Your task to perform on an android device: create a new album in the google photos Image 0: 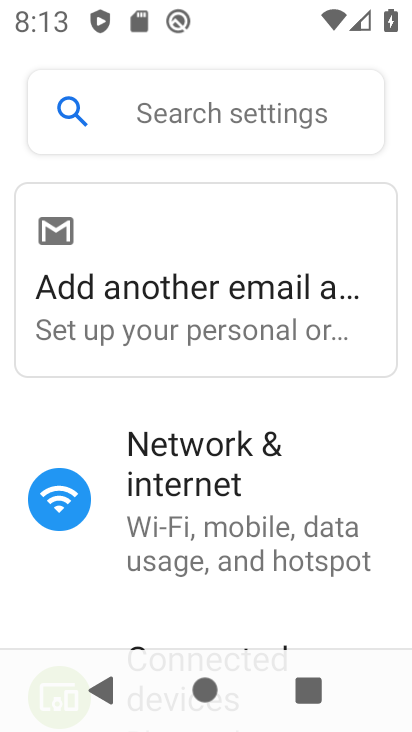
Step 0: press home button
Your task to perform on an android device: create a new album in the google photos Image 1: 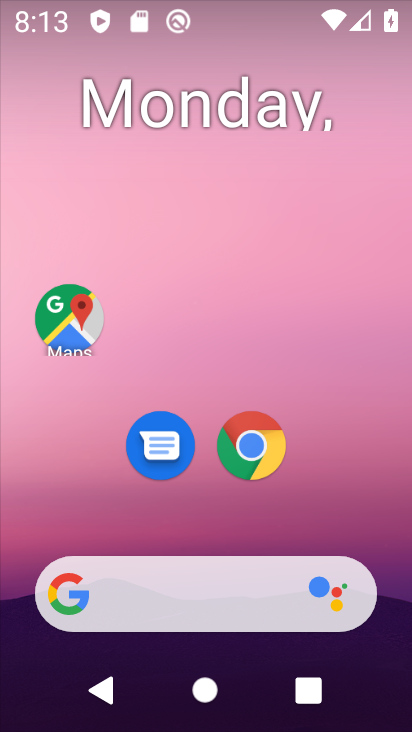
Step 1: drag from (207, 539) to (191, 138)
Your task to perform on an android device: create a new album in the google photos Image 2: 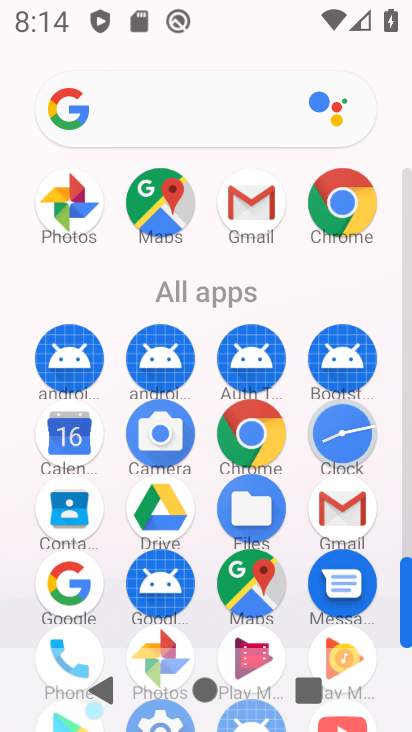
Step 2: click (69, 195)
Your task to perform on an android device: create a new album in the google photos Image 3: 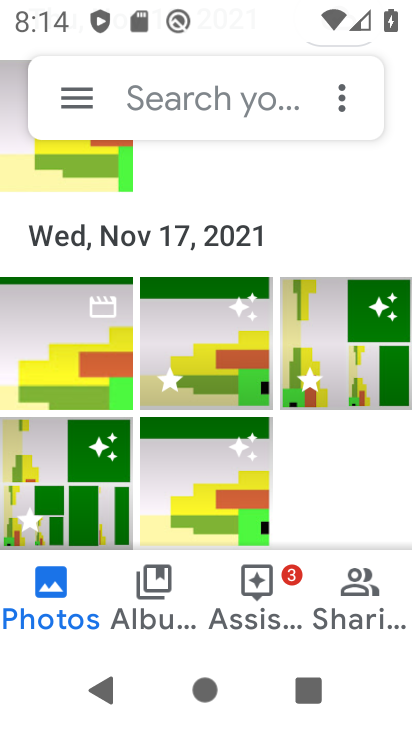
Step 3: click (144, 583)
Your task to perform on an android device: create a new album in the google photos Image 4: 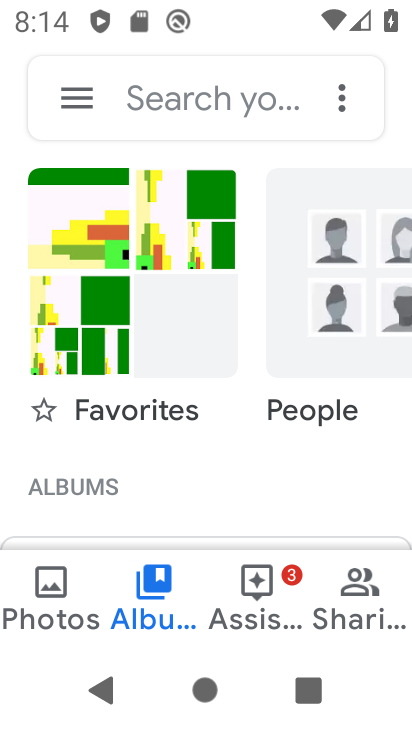
Step 4: click (346, 91)
Your task to perform on an android device: create a new album in the google photos Image 5: 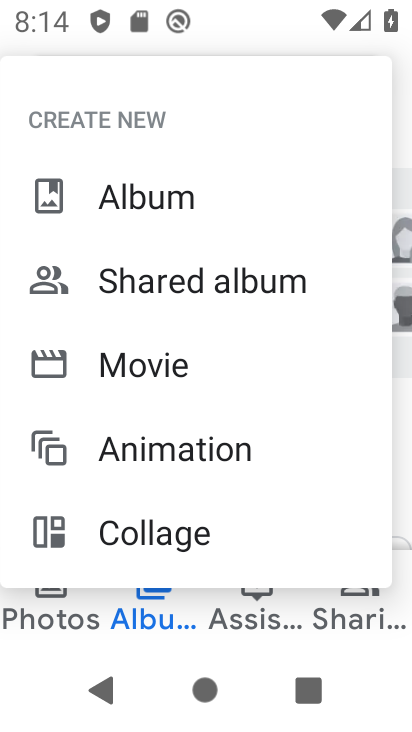
Step 5: click (192, 193)
Your task to perform on an android device: create a new album in the google photos Image 6: 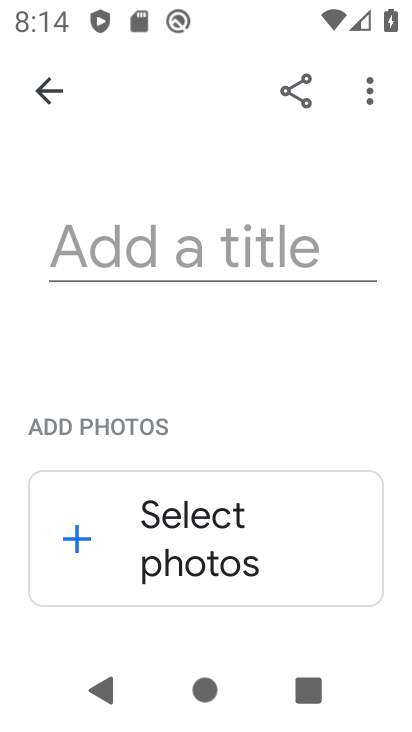
Step 6: click (168, 544)
Your task to perform on an android device: create a new album in the google photos Image 7: 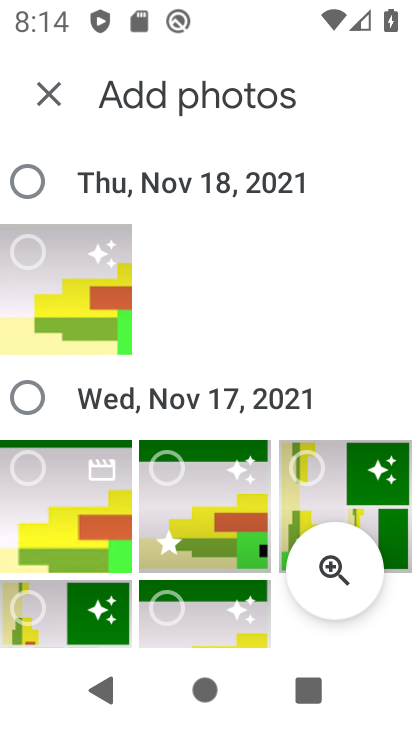
Step 7: click (64, 258)
Your task to perform on an android device: create a new album in the google photos Image 8: 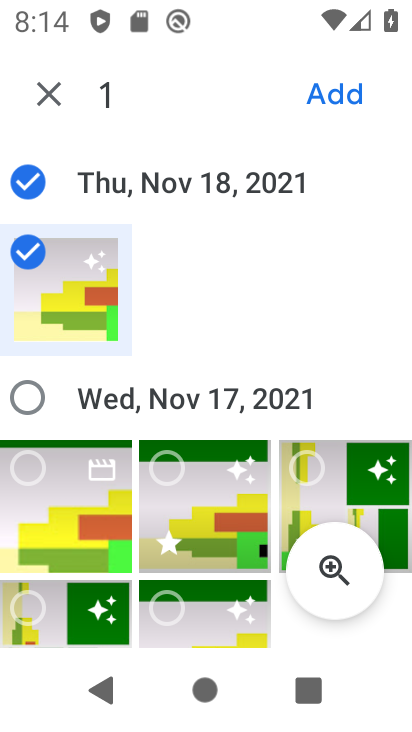
Step 8: click (185, 515)
Your task to perform on an android device: create a new album in the google photos Image 9: 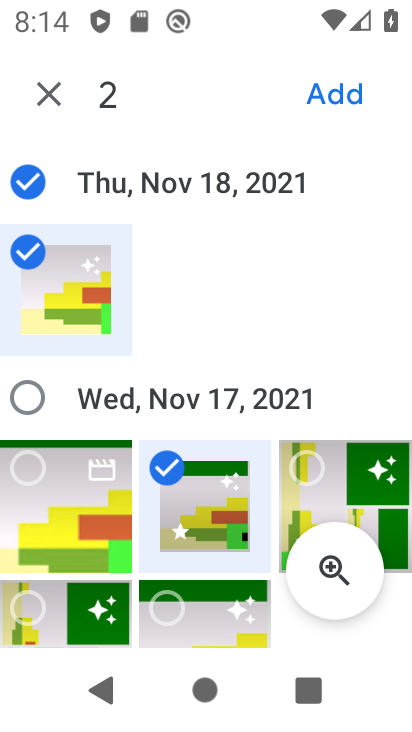
Step 9: click (339, 104)
Your task to perform on an android device: create a new album in the google photos Image 10: 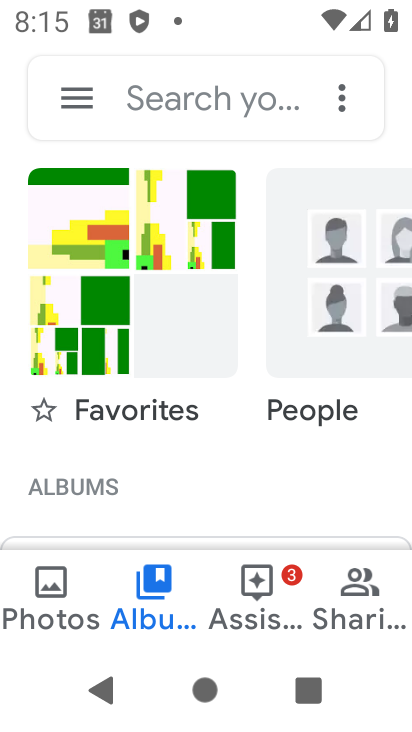
Step 10: click (95, 219)
Your task to perform on an android device: create a new album in the google photos Image 11: 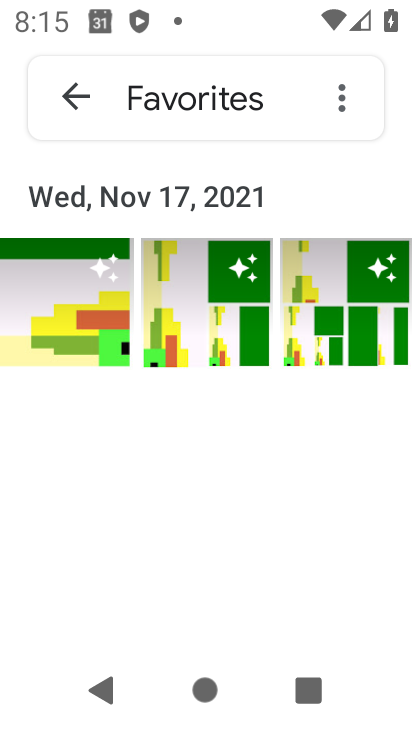
Step 11: click (80, 100)
Your task to perform on an android device: create a new album in the google photos Image 12: 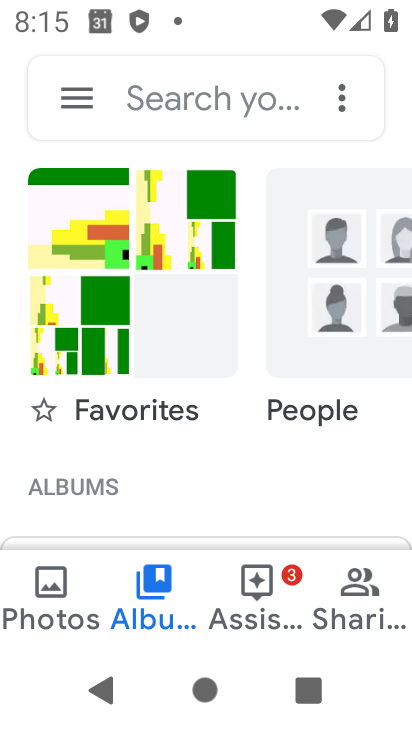
Step 12: click (344, 98)
Your task to perform on an android device: create a new album in the google photos Image 13: 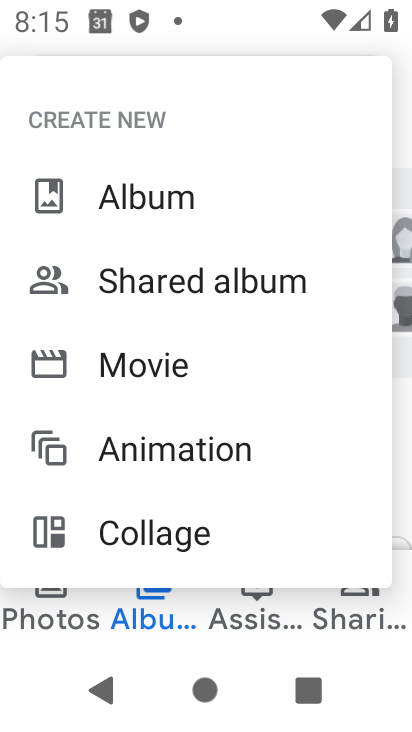
Step 13: click (188, 194)
Your task to perform on an android device: create a new album in the google photos Image 14: 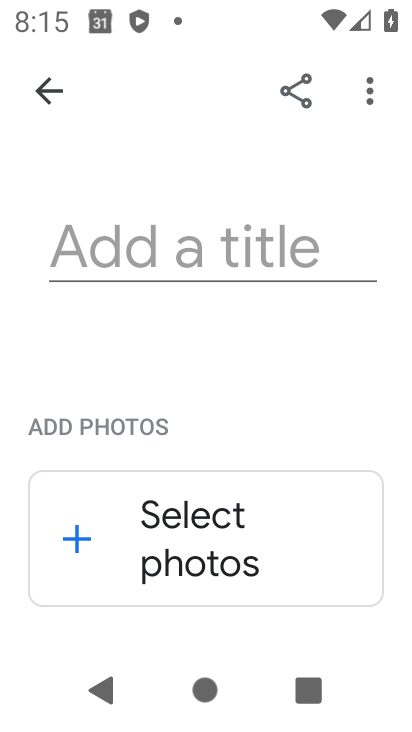
Step 14: click (73, 544)
Your task to perform on an android device: create a new album in the google photos Image 15: 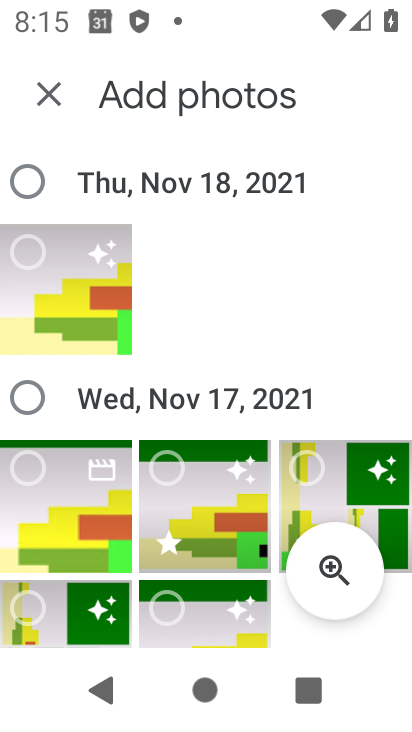
Step 15: click (111, 528)
Your task to perform on an android device: create a new album in the google photos Image 16: 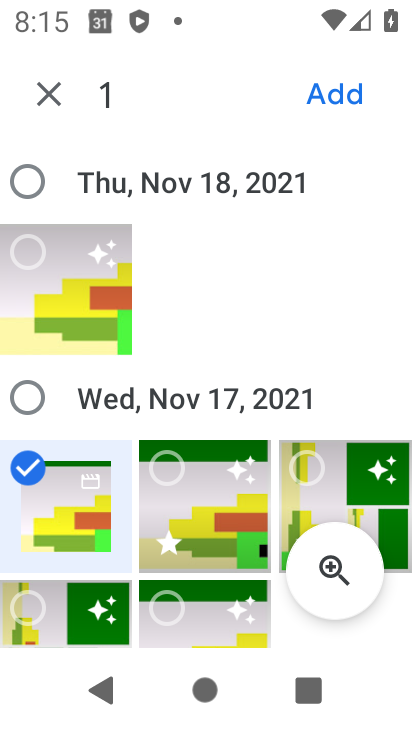
Step 16: click (319, 468)
Your task to perform on an android device: create a new album in the google photos Image 17: 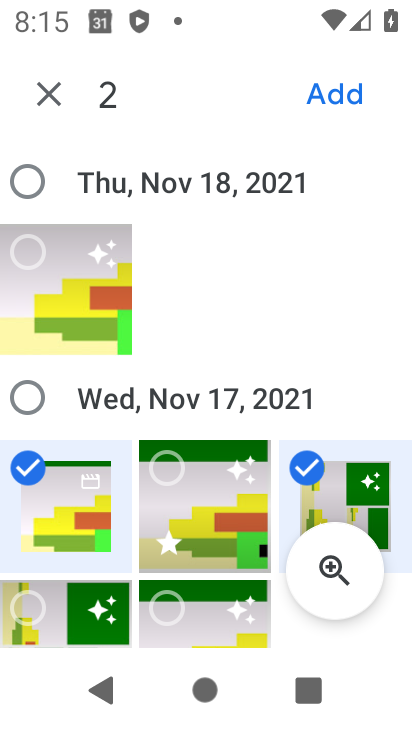
Step 17: click (337, 100)
Your task to perform on an android device: create a new album in the google photos Image 18: 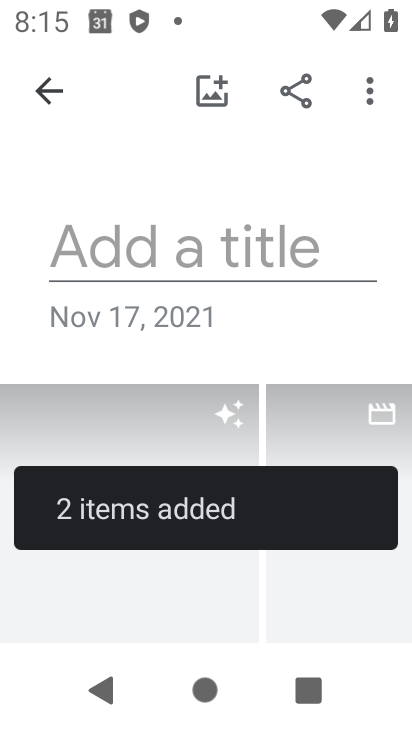
Step 18: click (197, 250)
Your task to perform on an android device: create a new album in the google photos Image 19: 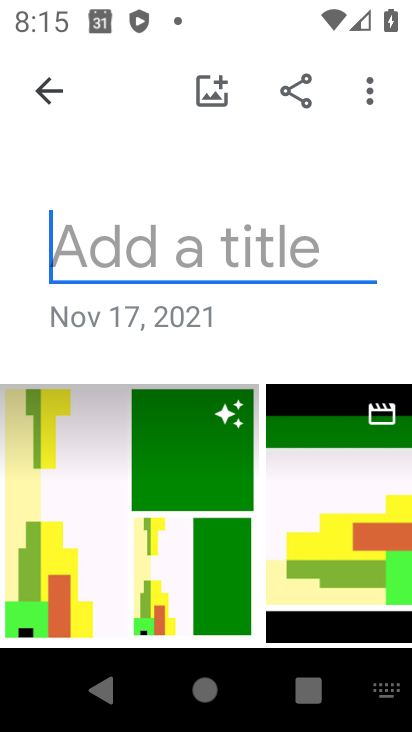
Step 19: type "bgfgrtd"
Your task to perform on an android device: create a new album in the google photos Image 20: 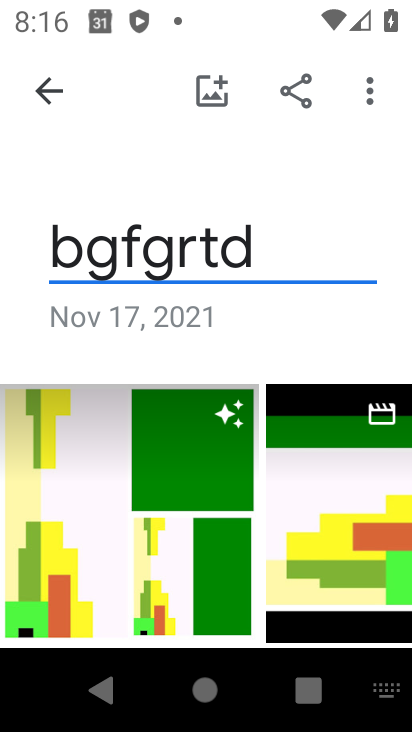
Step 20: task complete